Your task to perform on an android device: change timer sound Image 0: 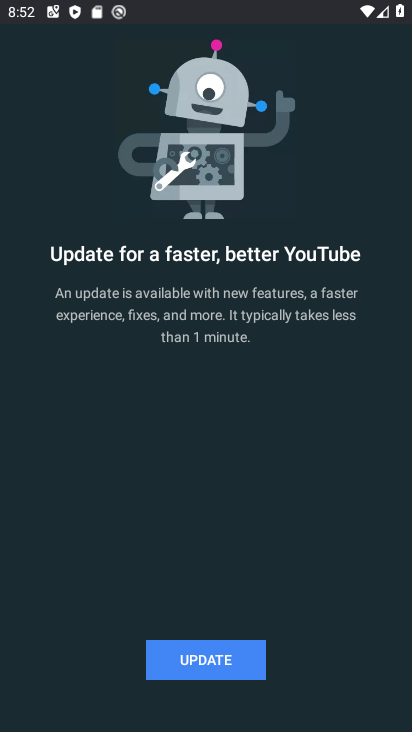
Step 0: press back button
Your task to perform on an android device: change timer sound Image 1: 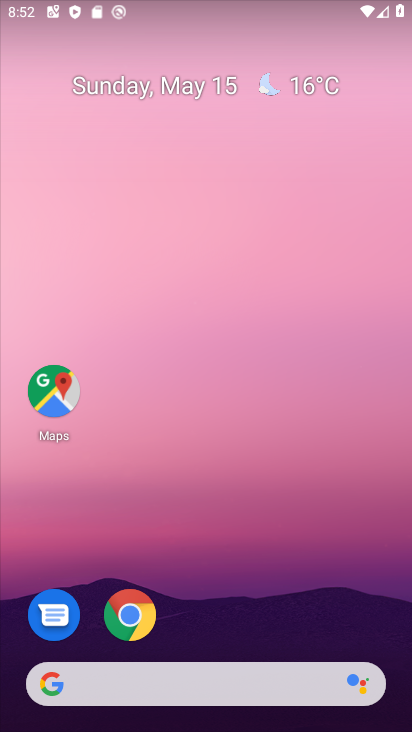
Step 1: drag from (312, 314) to (328, 101)
Your task to perform on an android device: change timer sound Image 2: 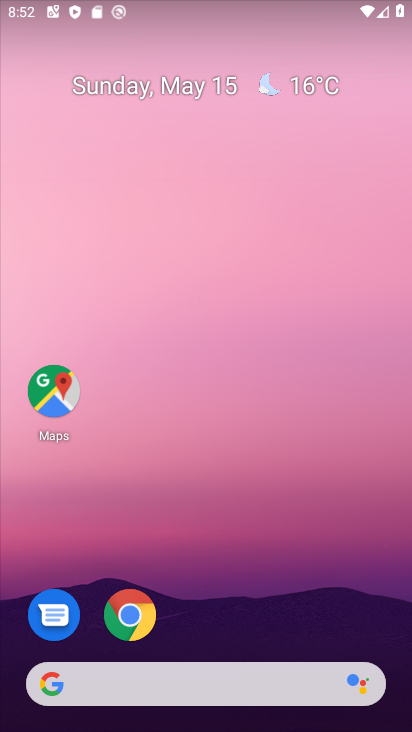
Step 2: drag from (313, 613) to (289, 32)
Your task to perform on an android device: change timer sound Image 3: 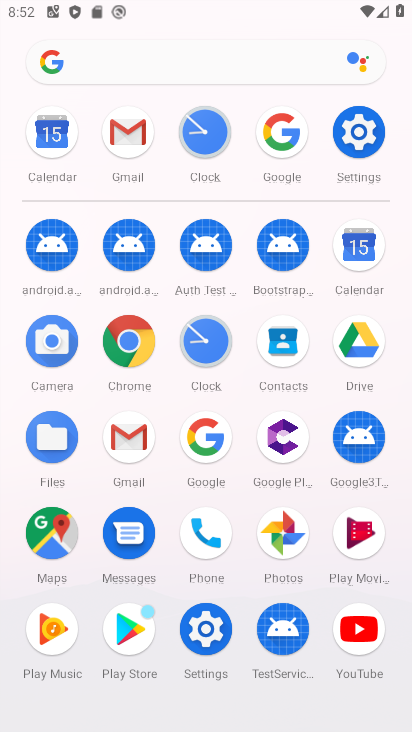
Step 3: click (220, 335)
Your task to perform on an android device: change timer sound Image 4: 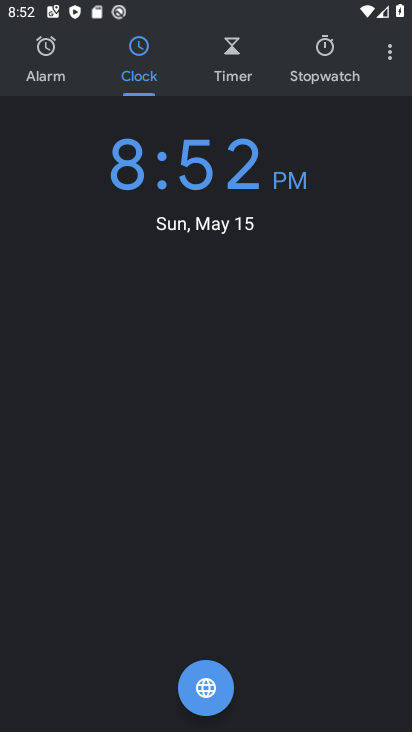
Step 4: click (391, 56)
Your task to perform on an android device: change timer sound Image 5: 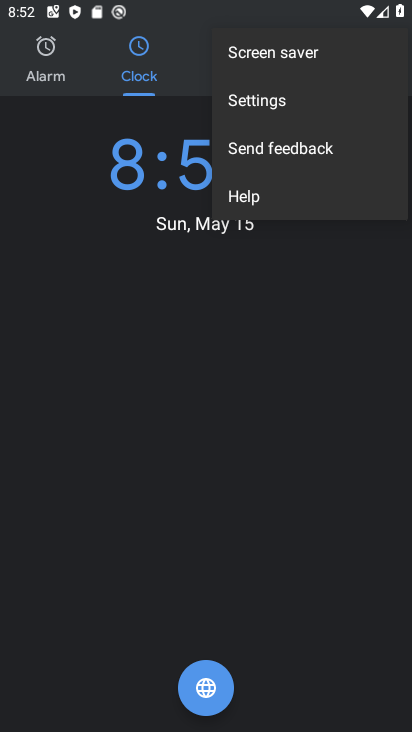
Step 5: click (273, 114)
Your task to perform on an android device: change timer sound Image 6: 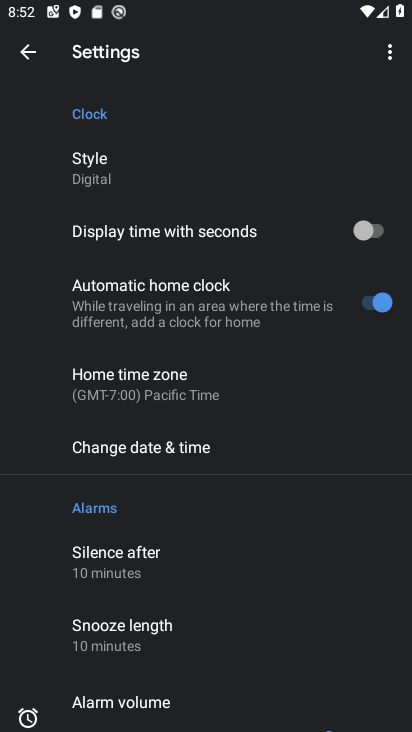
Step 6: drag from (216, 705) to (190, 336)
Your task to perform on an android device: change timer sound Image 7: 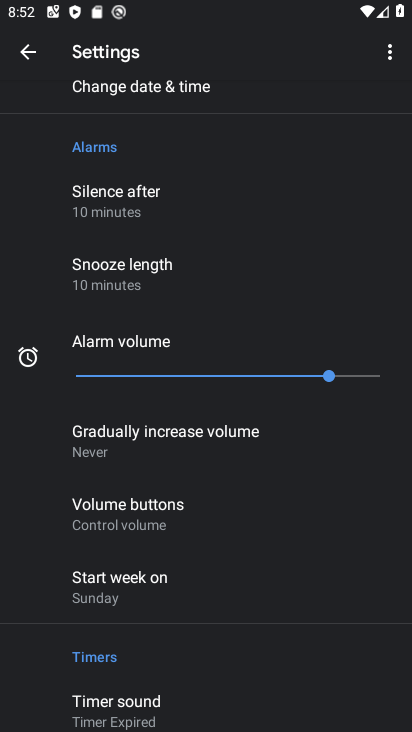
Step 7: click (192, 707)
Your task to perform on an android device: change timer sound Image 8: 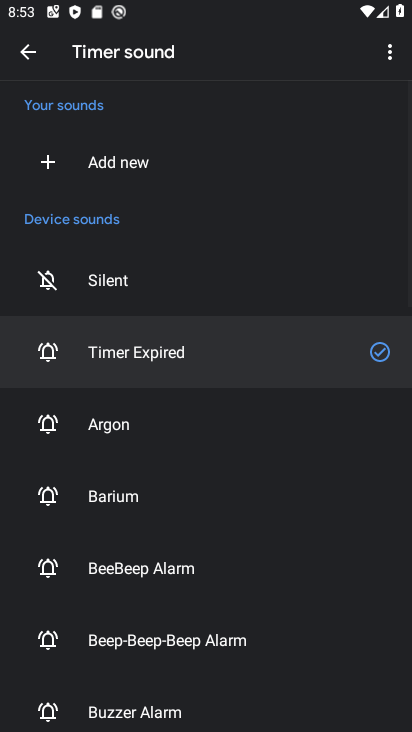
Step 8: click (139, 491)
Your task to perform on an android device: change timer sound Image 9: 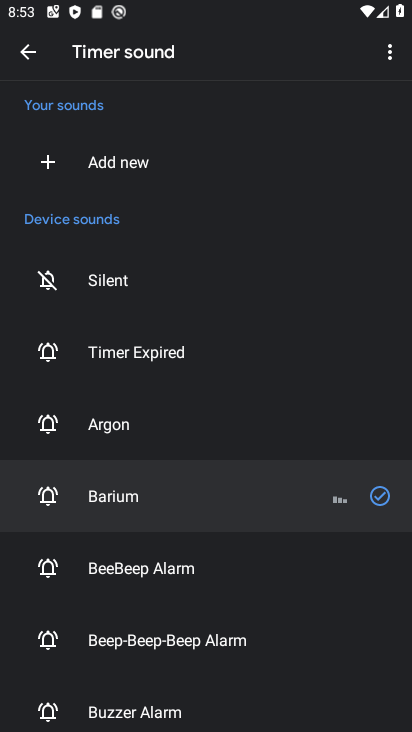
Step 9: task complete